Your task to perform on an android device: What is the recent news? Image 0: 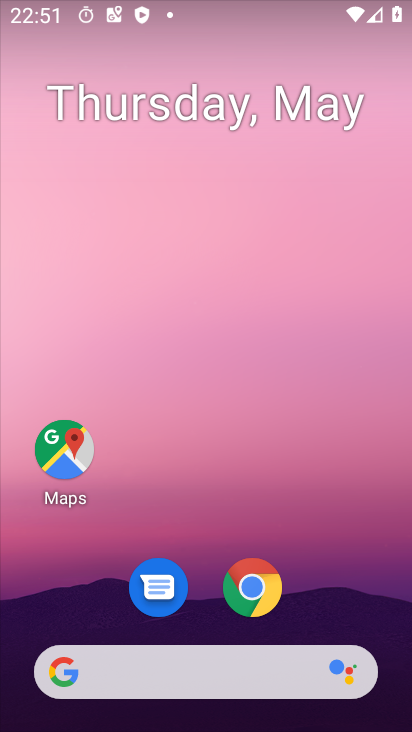
Step 0: click (95, 676)
Your task to perform on an android device: What is the recent news? Image 1: 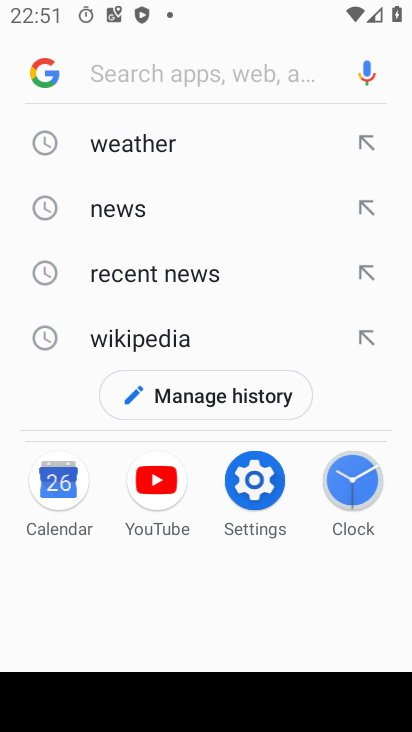
Step 1: click (133, 284)
Your task to perform on an android device: What is the recent news? Image 2: 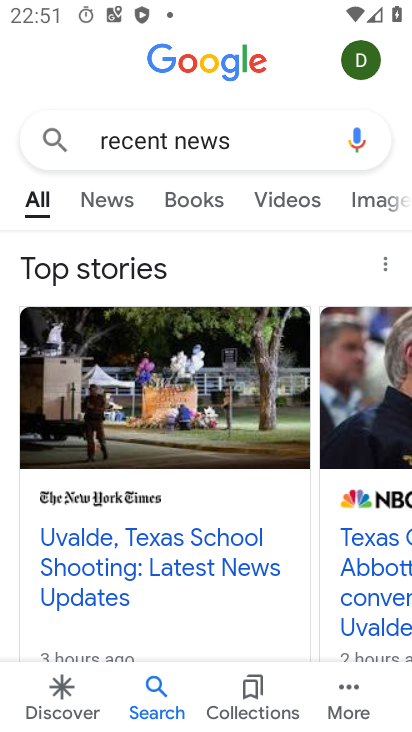
Step 2: drag from (169, 595) to (162, 393)
Your task to perform on an android device: What is the recent news? Image 3: 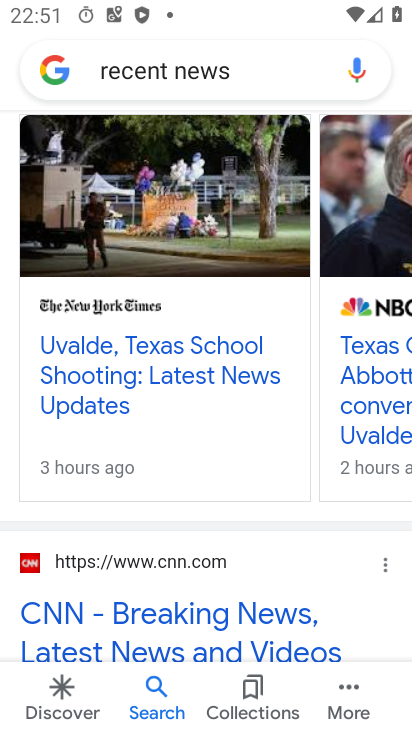
Step 3: drag from (197, 509) to (173, 259)
Your task to perform on an android device: What is the recent news? Image 4: 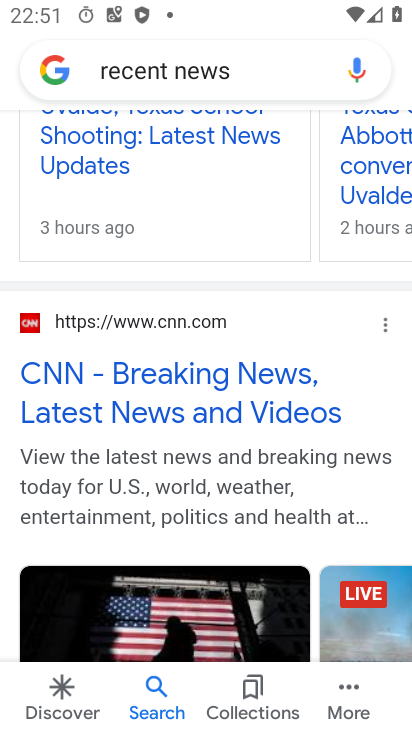
Step 4: drag from (167, 498) to (153, 330)
Your task to perform on an android device: What is the recent news? Image 5: 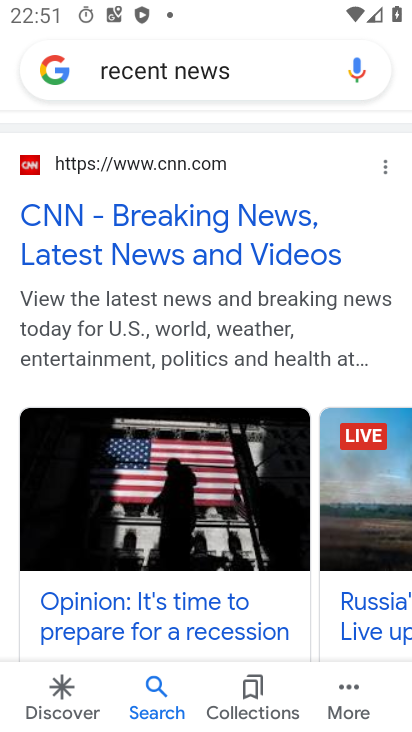
Step 5: drag from (138, 488) to (141, 294)
Your task to perform on an android device: What is the recent news? Image 6: 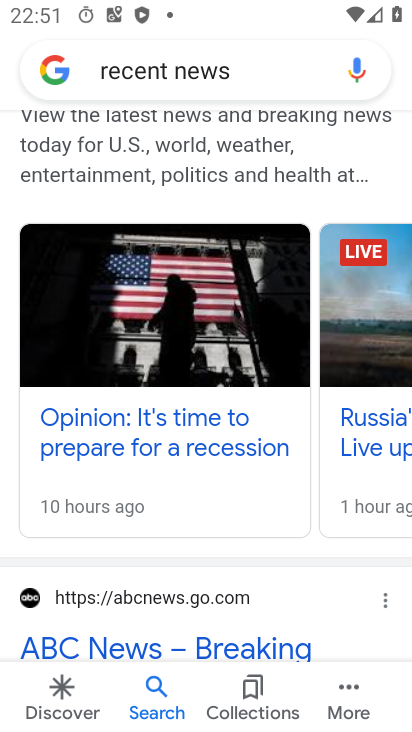
Step 6: click (352, 342)
Your task to perform on an android device: What is the recent news? Image 7: 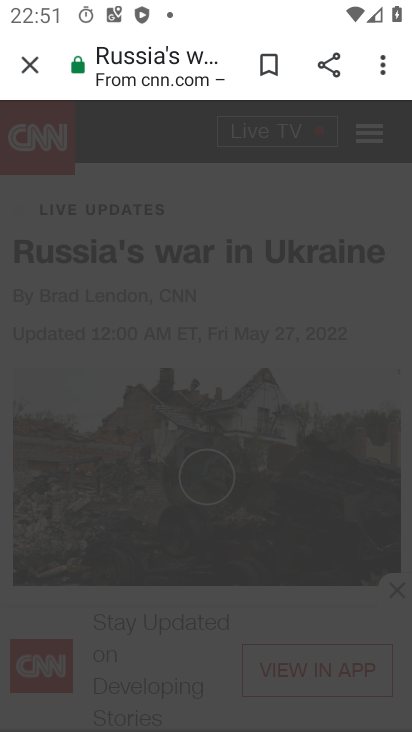
Step 7: task complete